Your task to perform on an android device: What's on my calendar today? Image 0: 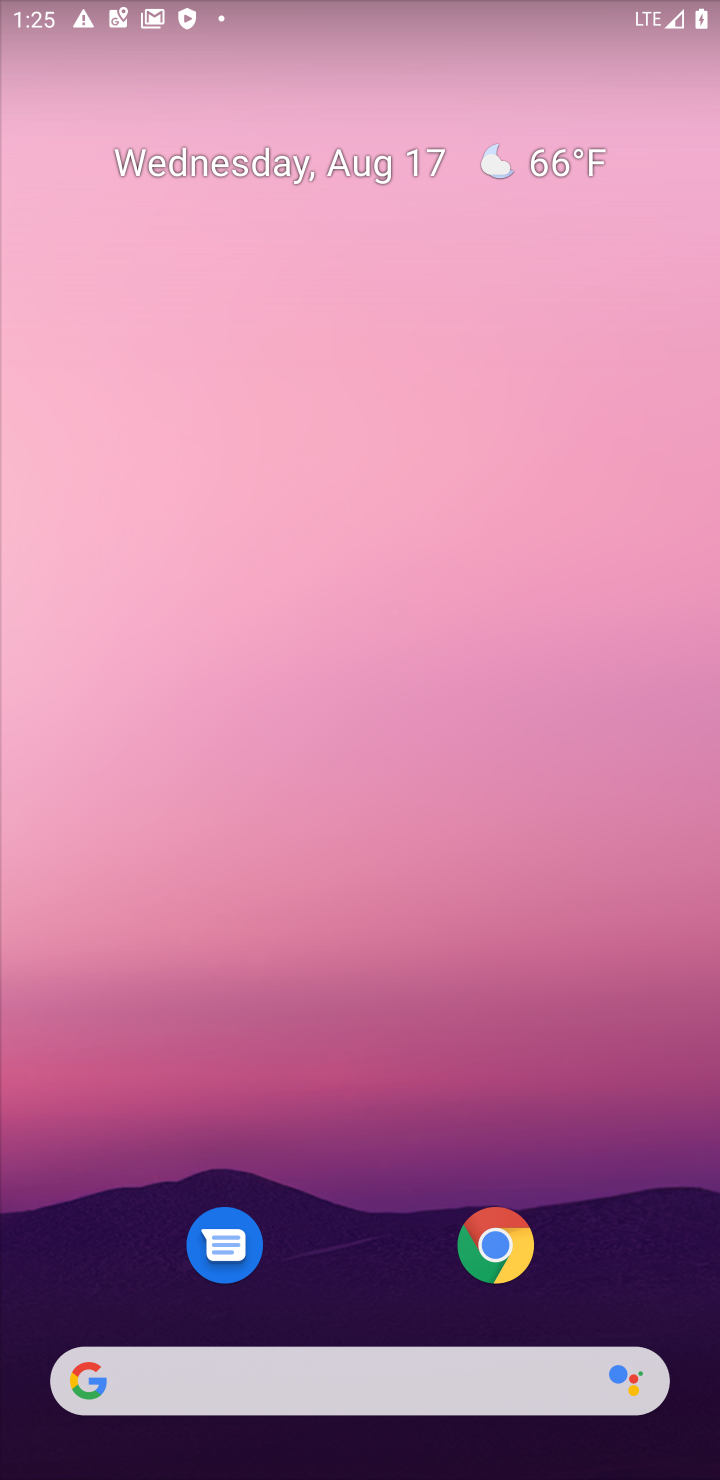
Step 0: drag from (389, 711) to (350, 167)
Your task to perform on an android device: What's on my calendar today? Image 1: 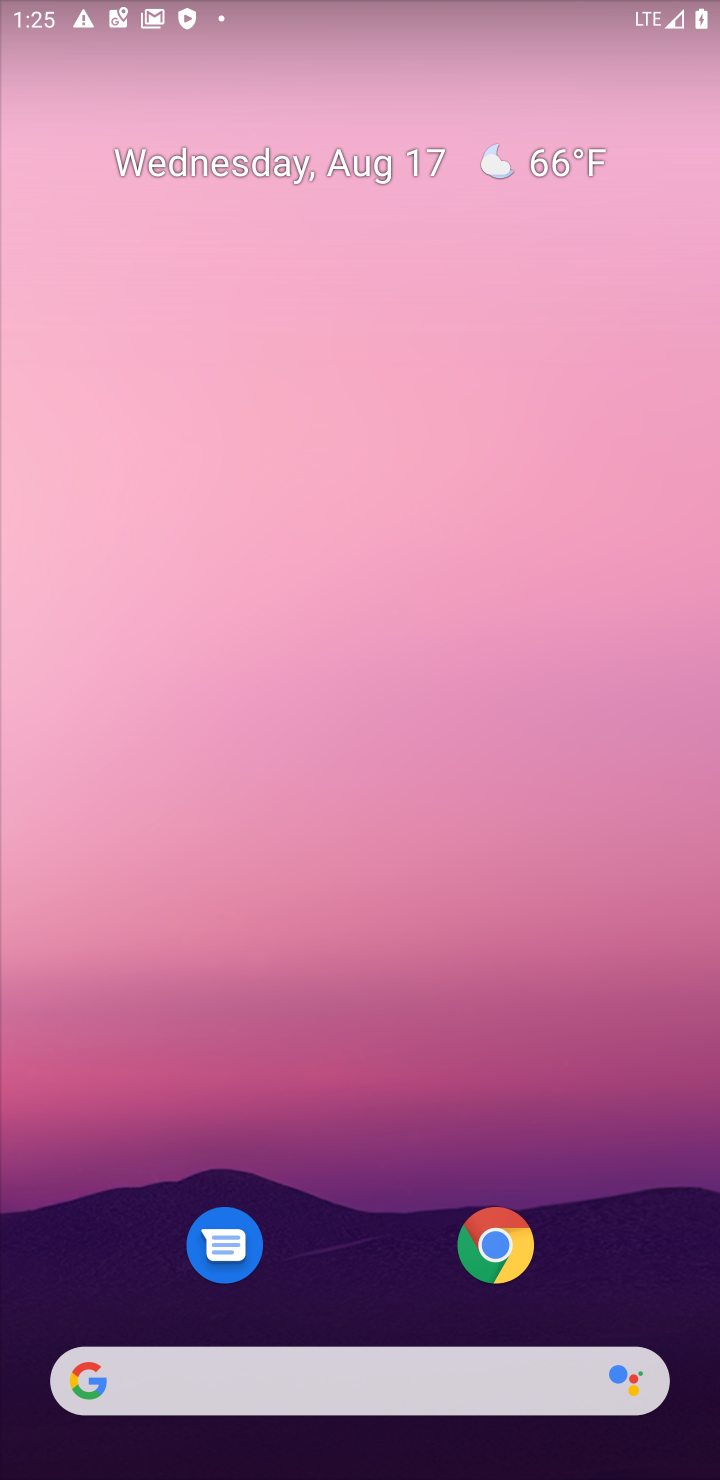
Step 1: drag from (383, 1258) to (346, 18)
Your task to perform on an android device: What's on my calendar today? Image 2: 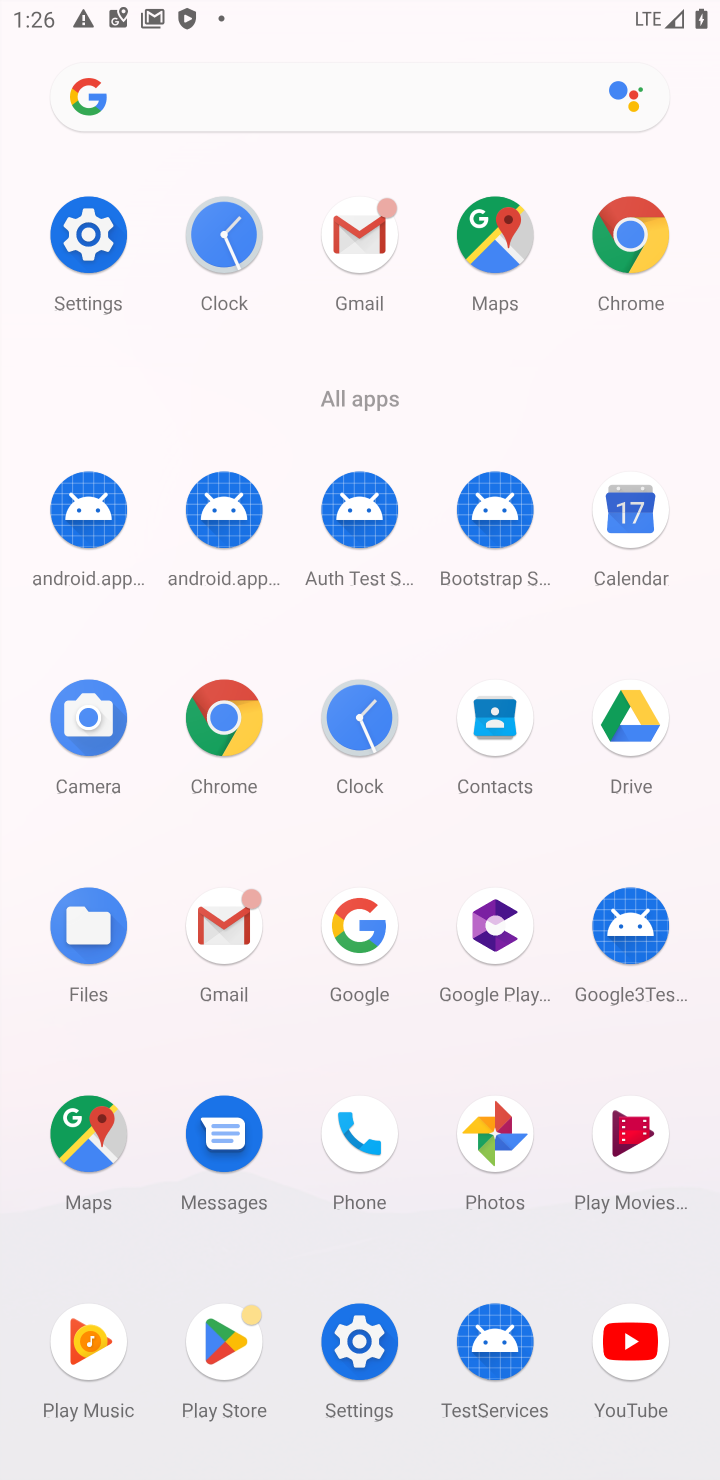
Step 2: click (617, 517)
Your task to perform on an android device: What's on my calendar today? Image 3: 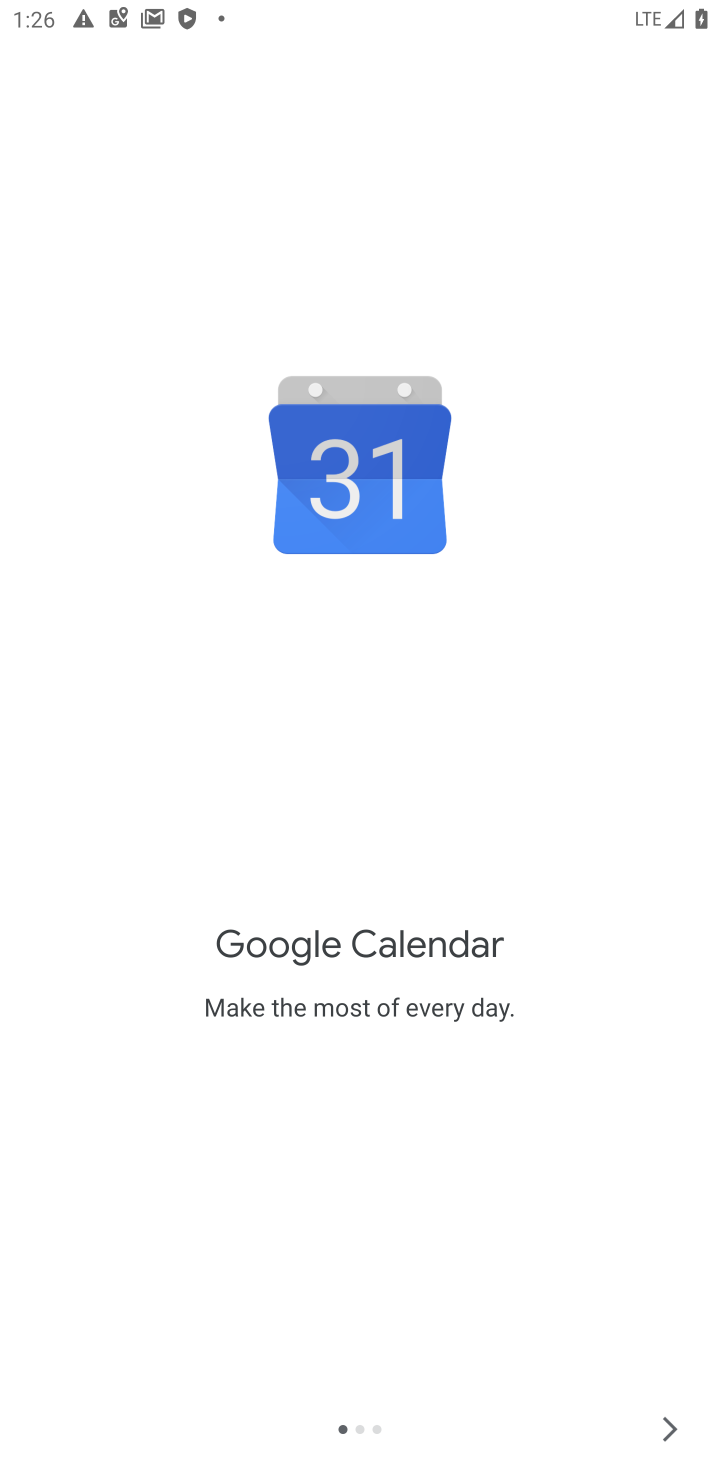
Step 3: click (671, 1414)
Your task to perform on an android device: What's on my calendar today? Image 4: 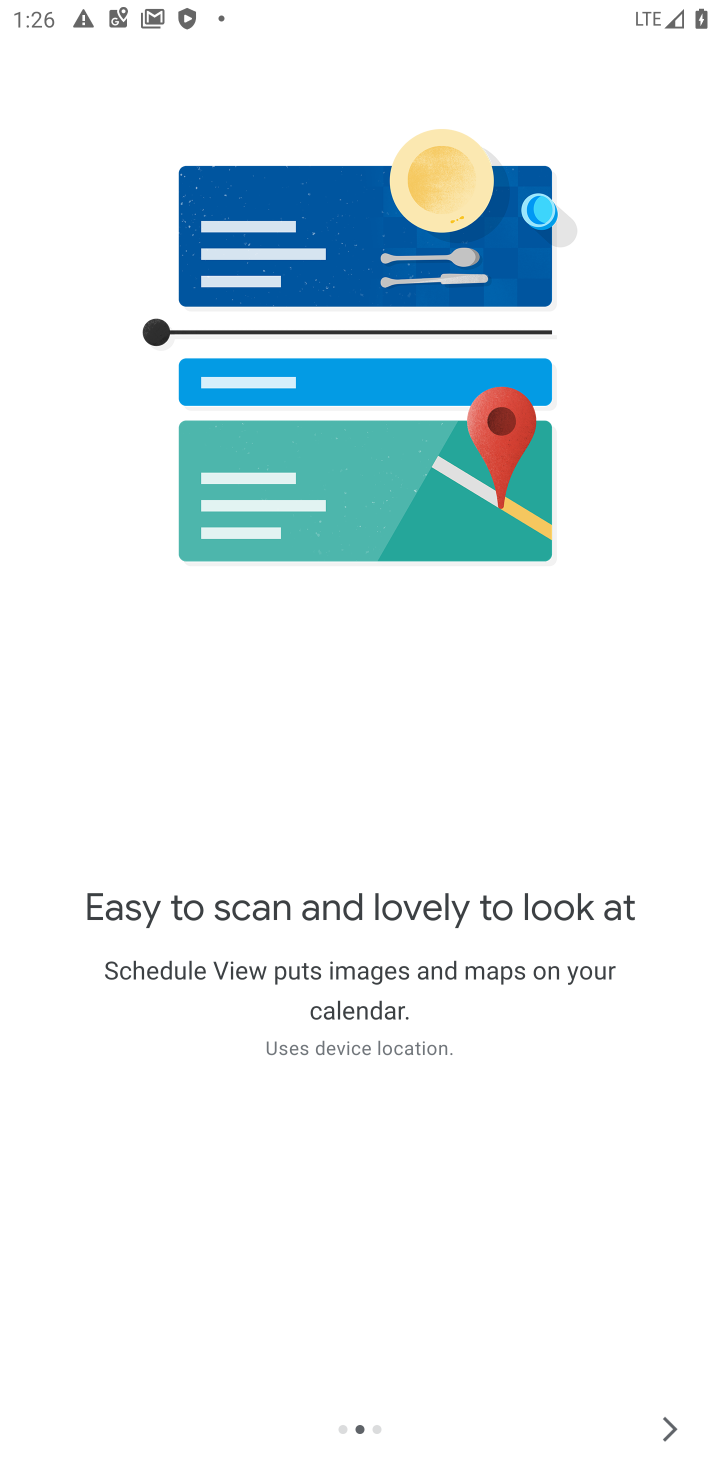
Step 4: click (670, 1426)
Your task to perform on an android device: What's on my calendar today? Image 5: 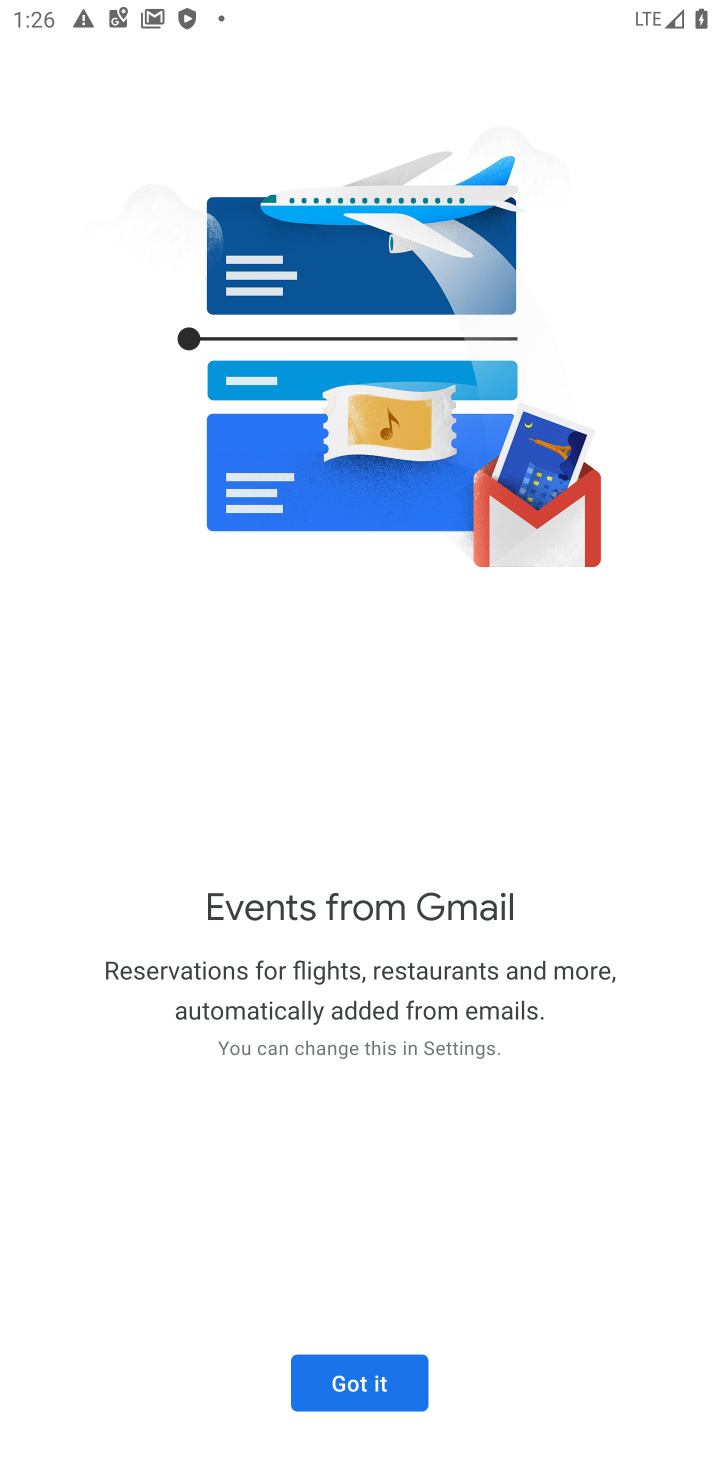
Step 5: click (355, 1369)
Your task to perform on an android device: What's on my calendar today? Image 6: 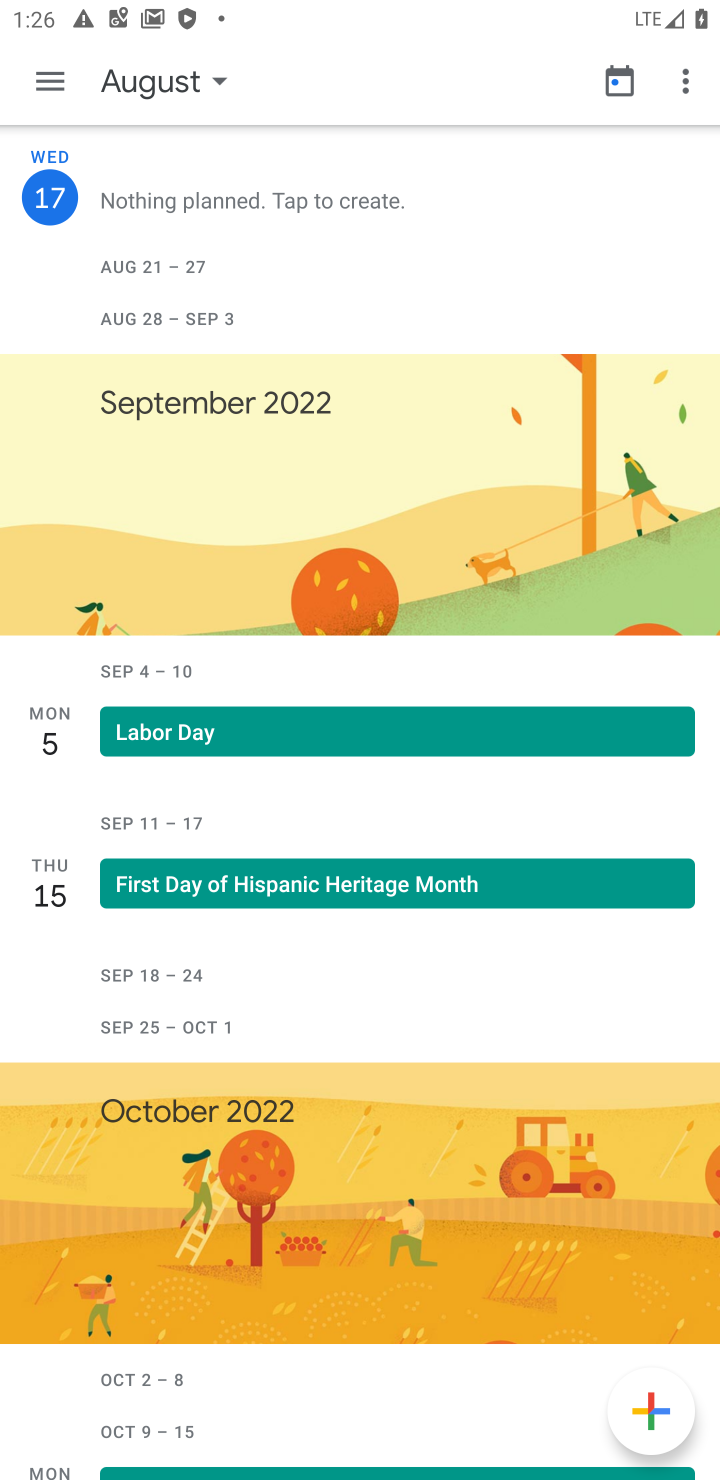
Step 6: task complete